Your task to perform on an android device: Turn on the flashlight Image 0: 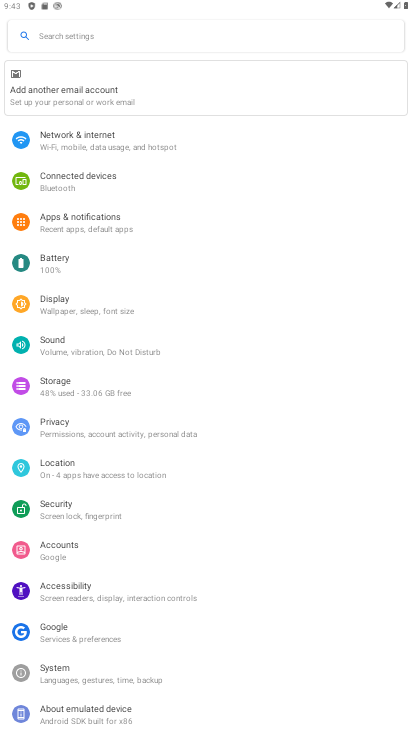
Step 0: task impossible